Your task to perform on an android device: check android version Image 0: 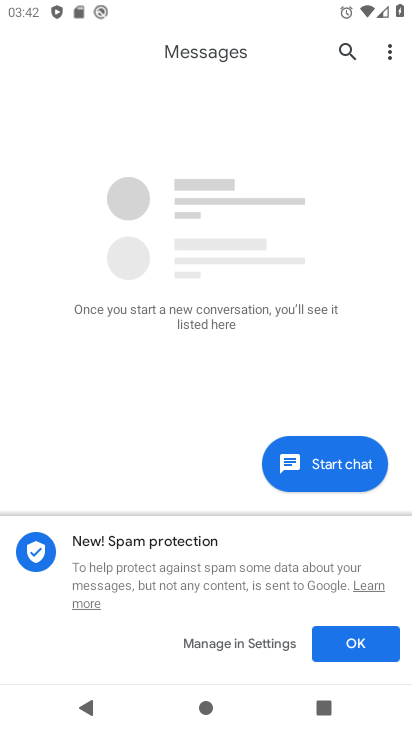
Step 0: press home button
Your task to perform on an android device: check android version Image 1: 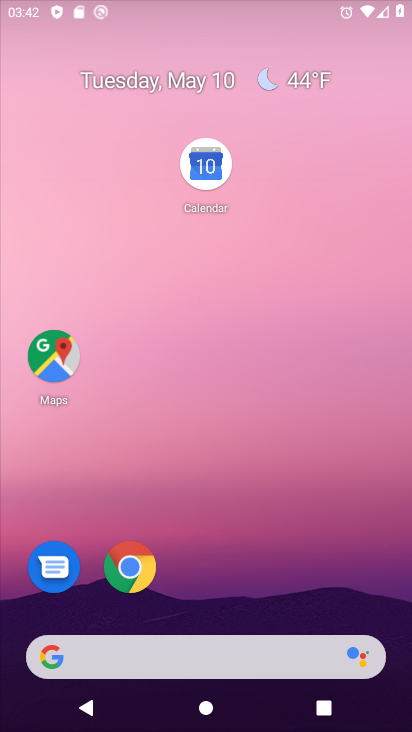
Step 1: drag from (229, 575) to (261, 67)
Your task to perform on an android device: check android version Image 2: 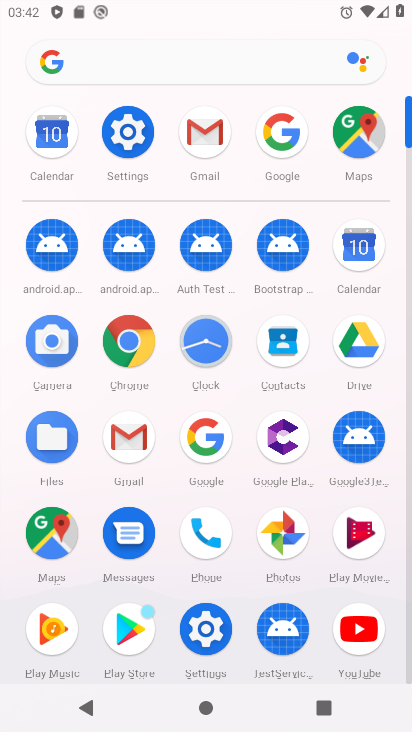
Step 2: click (126, 132)
Your task to perform on an android device: check android version Image 3: 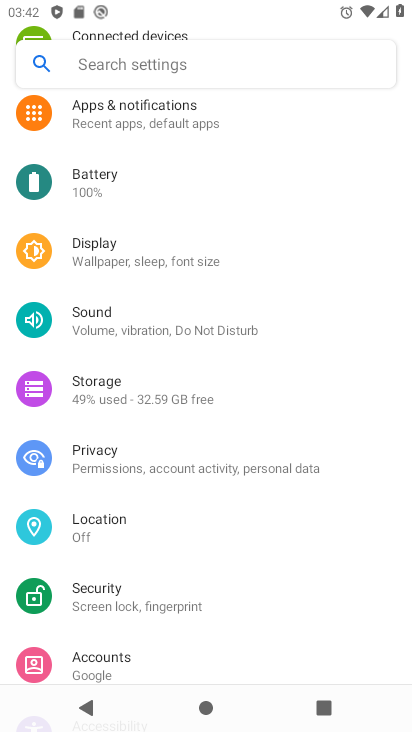
Step 3: drag from (224, 632) to (274, 33)
Your task to perform on an android device: check android version Image 4: 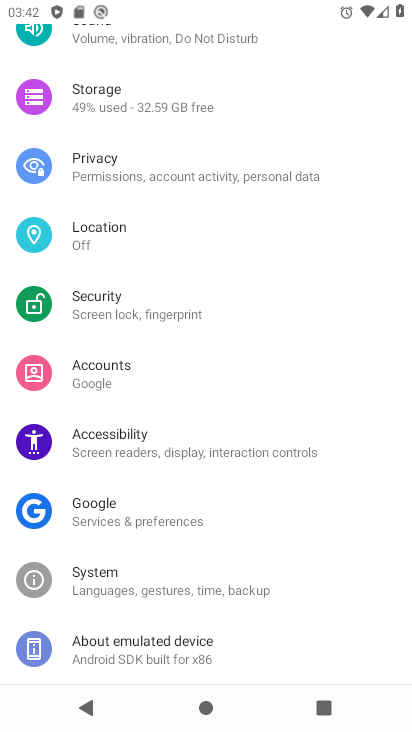
Step 4: click (113, 654)
Your task to perform on an android device: check android version Image 5: 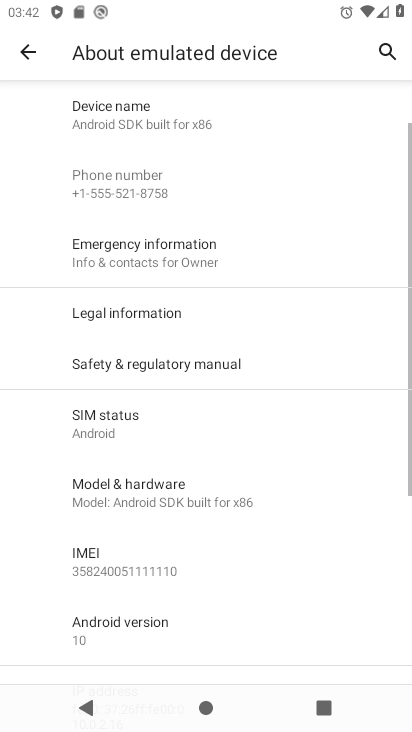
Step 5: click (115, 617)
Your task to perform on an android device: check android version Image 6: 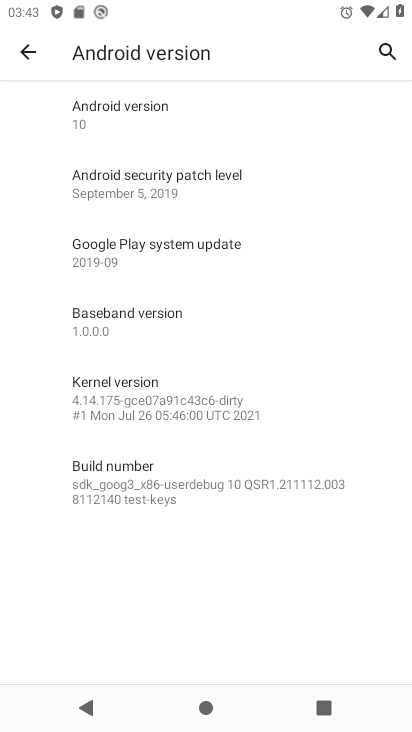
Step 6: task complete